Your task to perform on an android device: snooze an email in the gmail app Image 0: 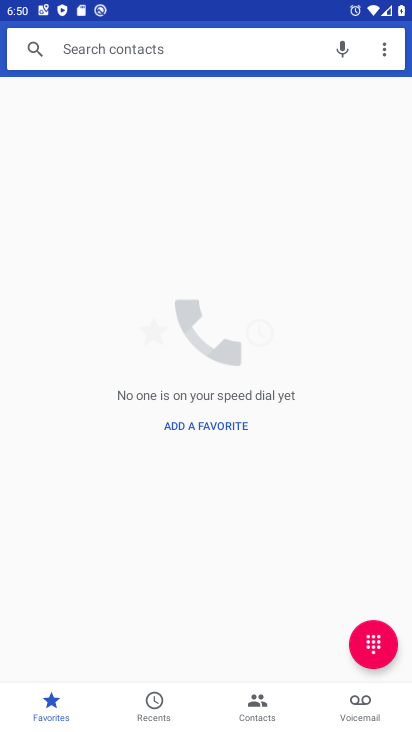
Step 0: press home button
Your task to perform on an android device: snooze an email in the gmail app Image 1: 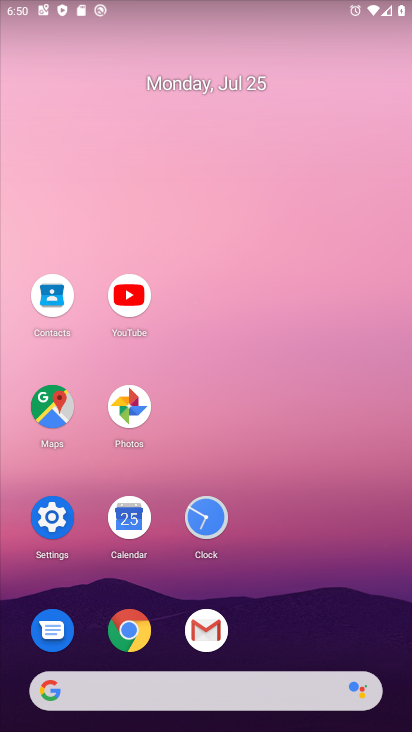
Step 1: click (205, 628)
Your task to perform on an android device: snooze an email in the gmail app Image 2: 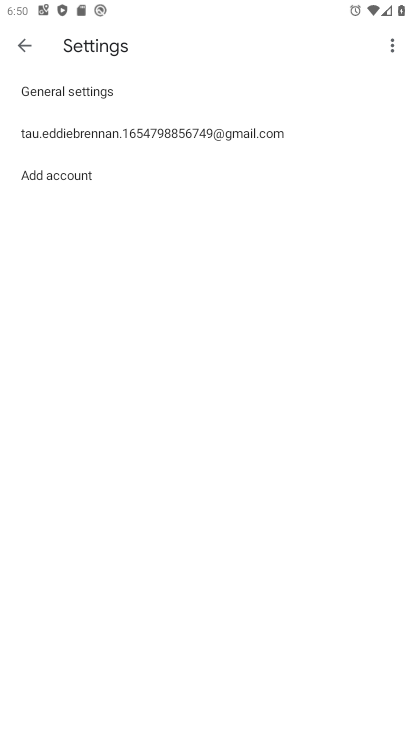
Step 2: click (23, 45)
Your task to perform on an android device: snooze an email in the gmail app Image 3: 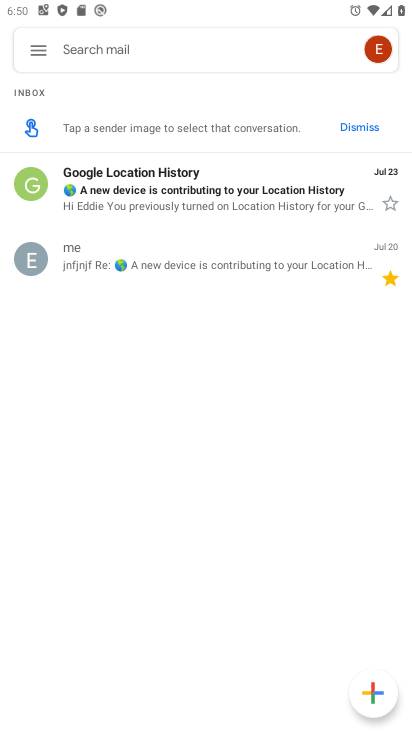
Step 3: click (152, 177)
Your task to perform on an android device: snooze an email in the gmail app Image 4: 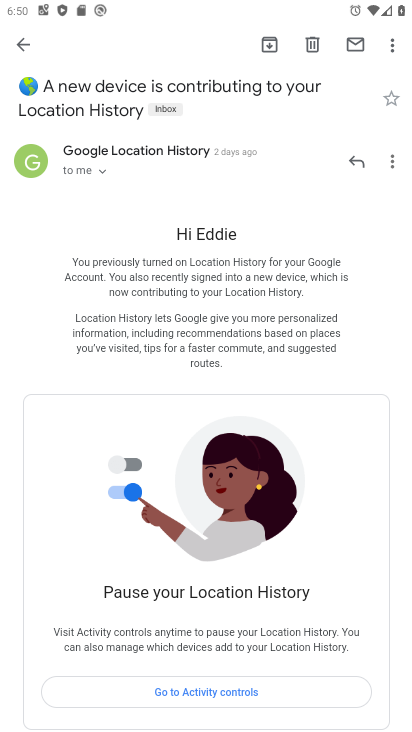
Step 4: click (395, 159)
Your task to perform on an android device: snooze an email in the gmail app Image 5: 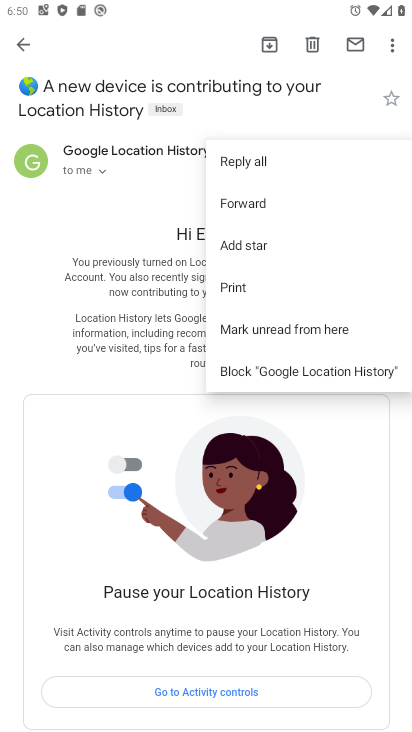
Step 5: click (336, 491)
Your task to perform on an android device: snooze an email in the gmail app Image 6: 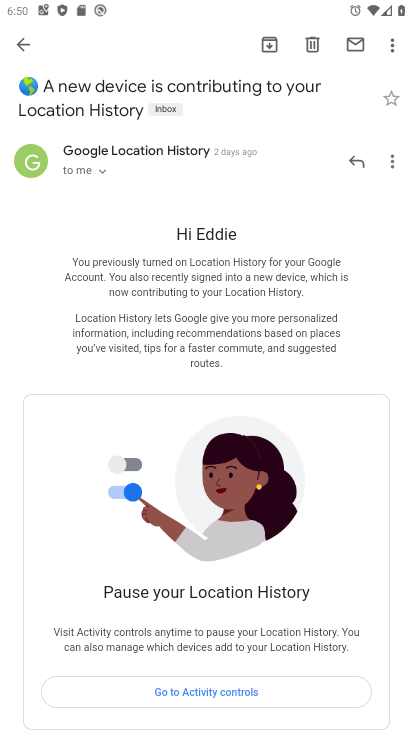
Step 6: click (392, 45)
Your task to perform on an android device: snooze an email in the gmail app Image 7: 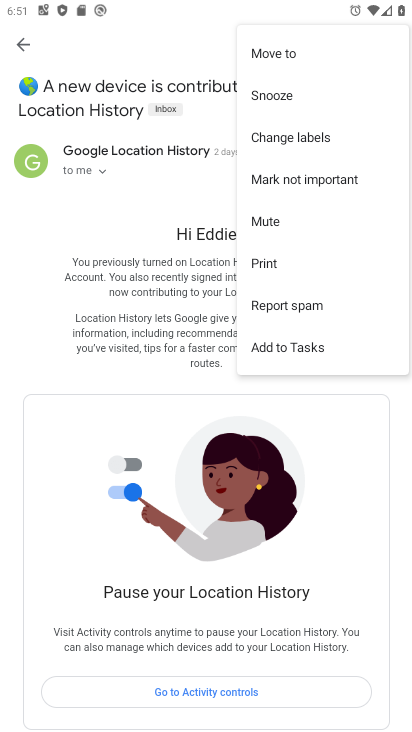
Step 7: click (284, 93)
Your task to perform on an android device: snooze an email in the gmail app Image 8: 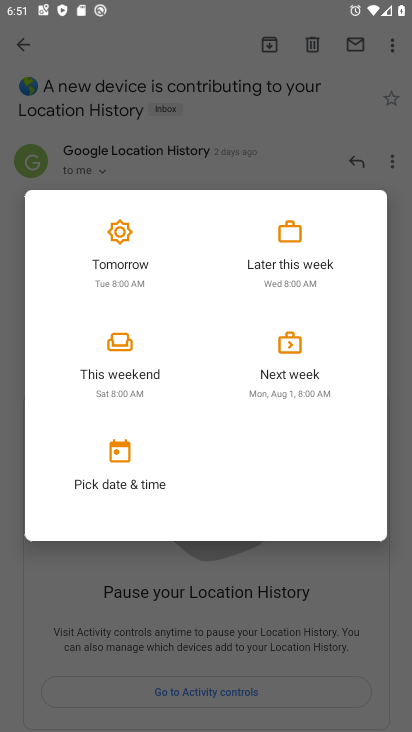
Step 8: click (108, 250)
Your task to perform on an android device: snooze an email in the gmail app Image 9: 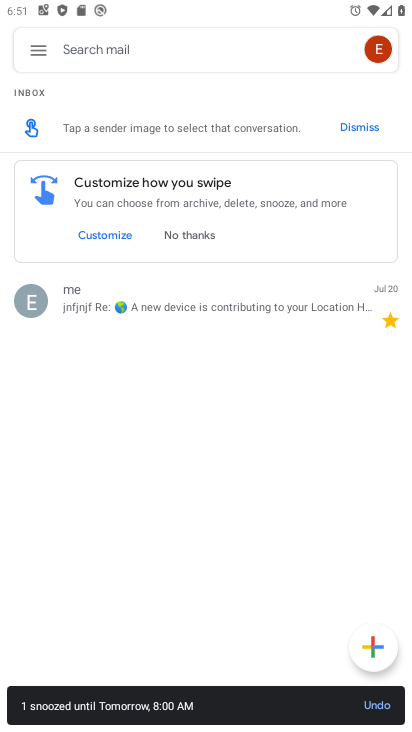
Step 9: task complete